Your task to perform on an android device: Search for asus zenbook on newegg.com, select the first entry, add it to the cart, then select checkout. Image 0: 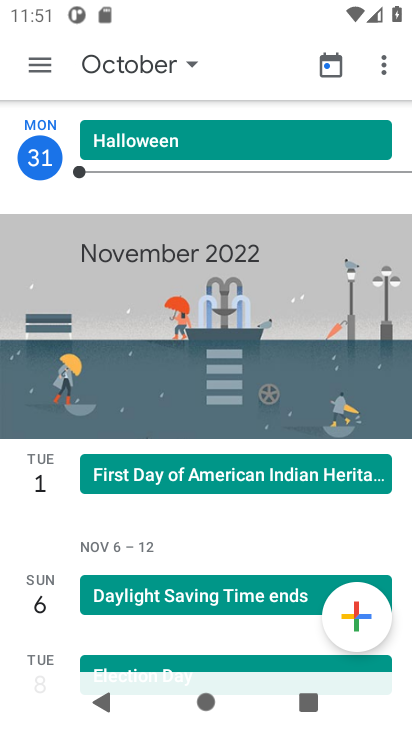
Step 0: press home button
Your task to perform on an android device: Search for asus zenbook on newegg.com, select the first entry, add it to the cart, then select checkout. Image 1: 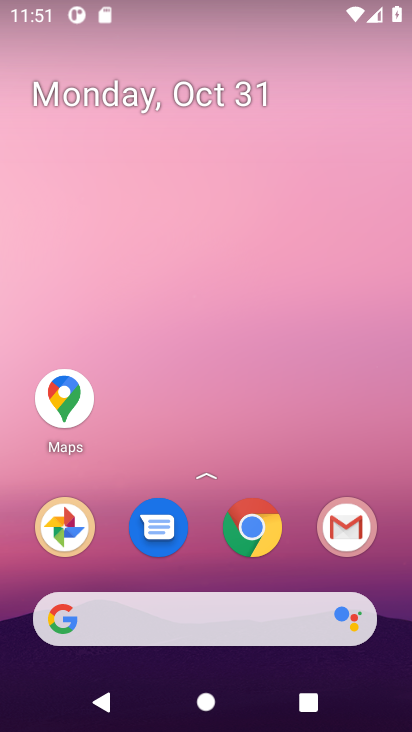
Step 1: click (249, 527)
Your task to perform on an android device: Search for asus zenbook on newegg.com, select the first entry, add it to the cart, then select checkout. Image 2: 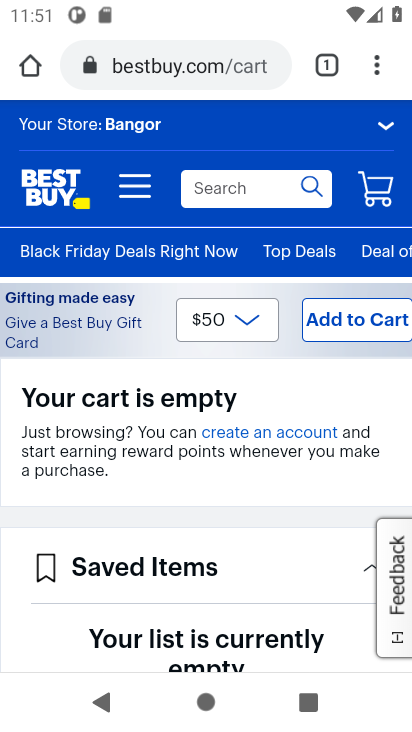
Step 2: click (202, 43)
Your task to perform on an android device: Search for asus zenbook on newegg.com, select the first entry, add it to the cart, then select checkout. Image 3: 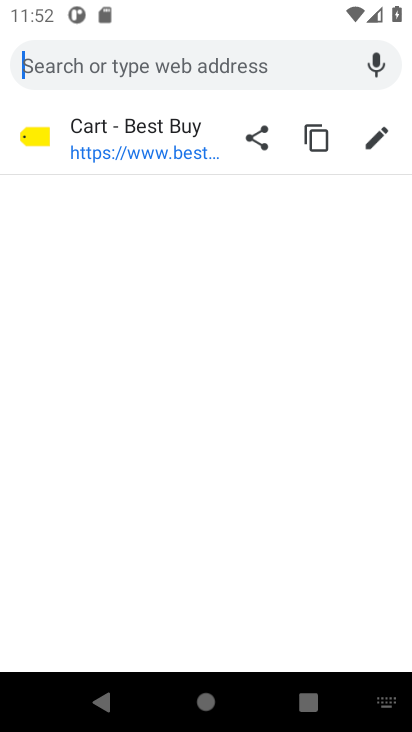
Step 3: type "newegg.com"
Your task to perform on an android device: Search for asus zenbook on newegg.com, select the first entry, add it to the cart, then select checkout. Image 4: 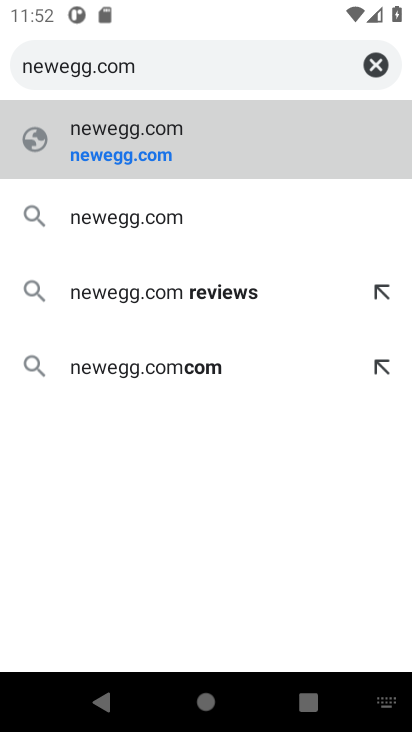
Step 4: click (138, 137)
Your task to perform on an android device: Search for asus zenbook on newegg.com, select the first entry, add it to the cart, then select checkout. Image 5: 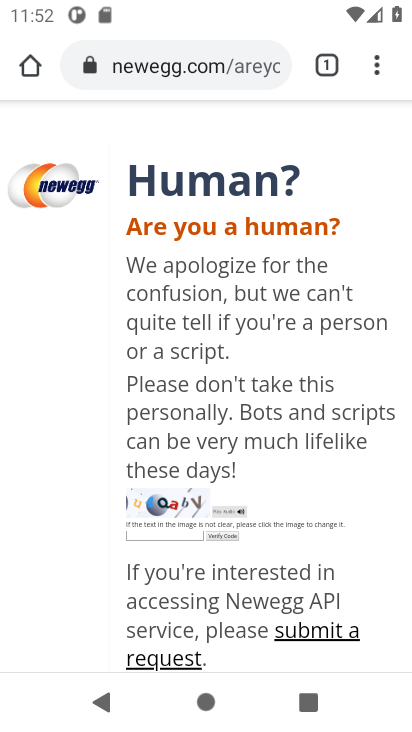
Step 5: click (151, 531)
Your task to perform on an android device: Search for asus zenbook on newegg.com, select the first entry, add it to the cart, then select checkout. Image 6: 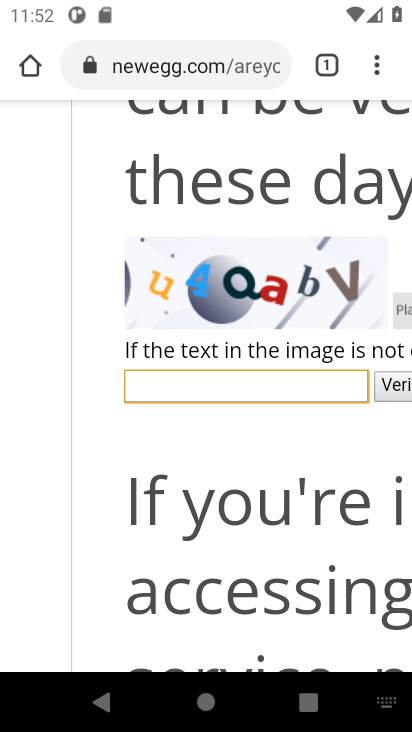
Step 6: type "u4QabV"
Your task to perform on an android device: Search for asus zenbook on newegg.com, select the first entry, add it to the cart, then select checkout. Image 7: 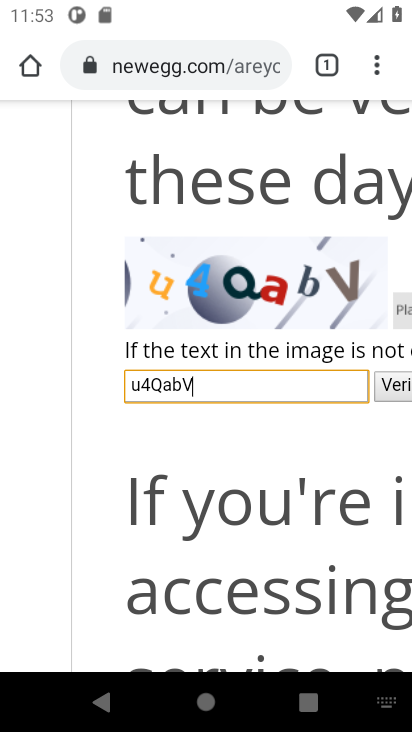
Step 7: click (389, 385)
Your task to perform on an android device: Search for asus zenbook on newegg.com, select the first entry, add it to the cart, then select checkout. Image 8: 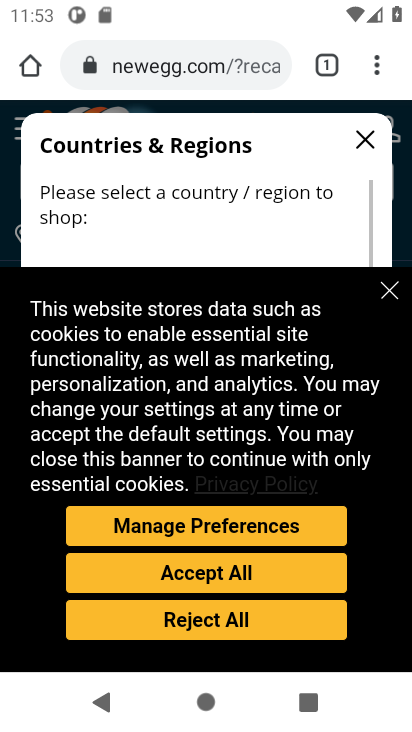
Step 8: click (204, 572)
Your task to perform on an android device: Search for asus zenbook on newegg.com, select the first entry, add it to the cart, then select checkout. Image 9: 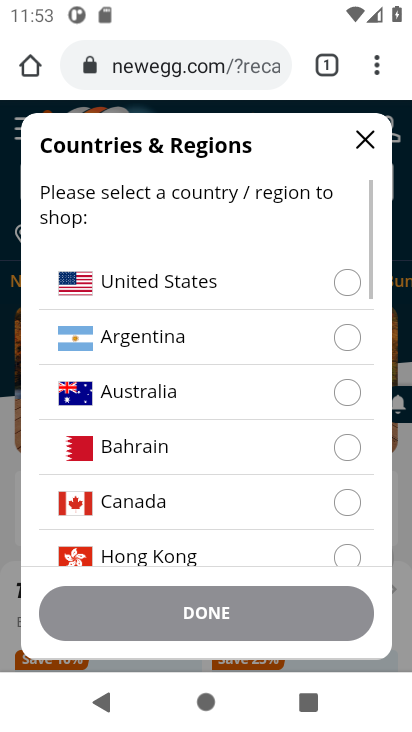
Step 9: click (347, 274)
Your task to perform on an android device: Search for asus zenbook on newegg.com, select the first entry, add it to the cart, then select checkout. Image 10: 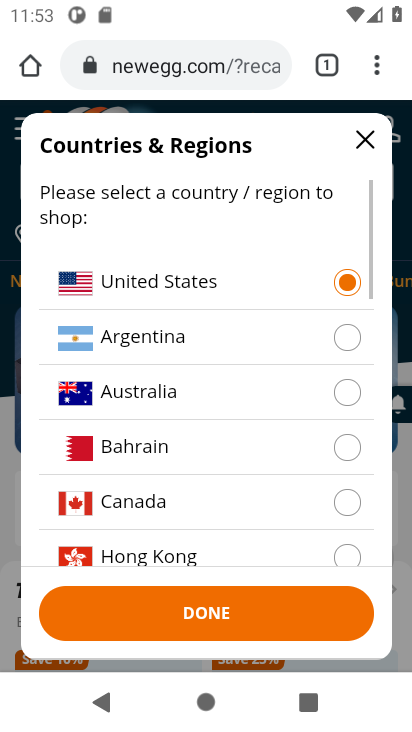
Step 10: click (209, 619)
Your task to perform on an android device: Search for asus zenbook on newegg.com, select the first entry, add it to the cart, then select checkout. Image 11: 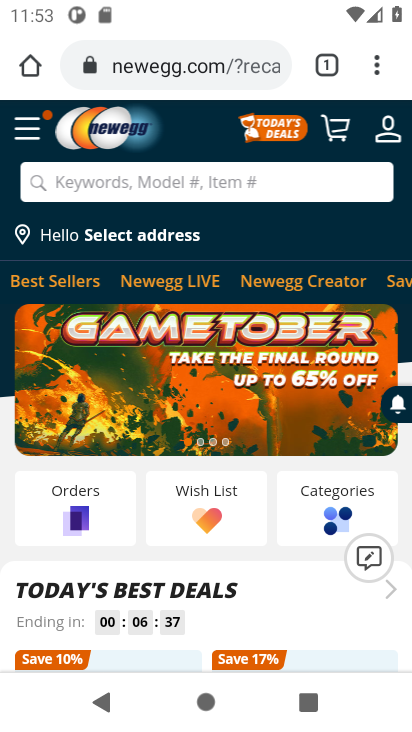
Step 11: click (103, 175)
Your task to perform on an android device: Search for asus zenbook on newegg.com, select the first entry, add it to the cart, then select checkout. Image 12: 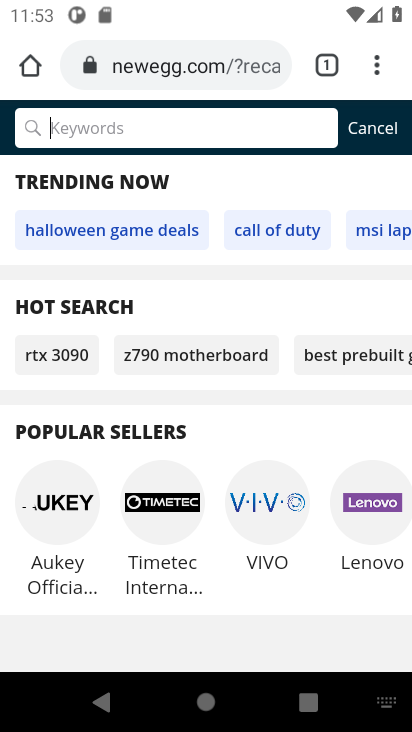
Step 12: type "asus zenbook"
Your task to perform on an android device: Search for asus zenbook on newegg.com, select the first entry, add it to the cart, then select checkout. Image 13: 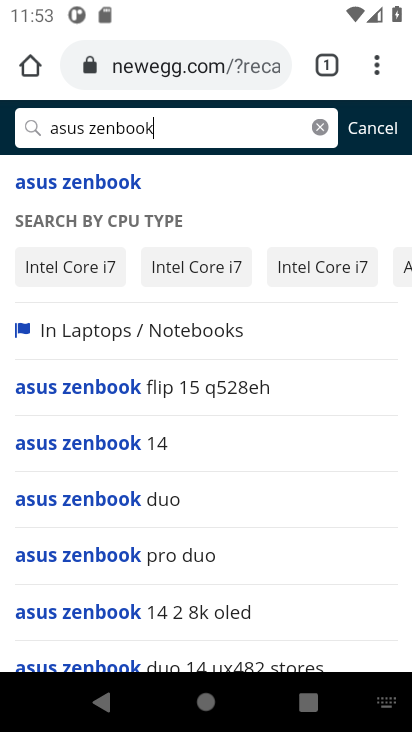
Step 13: click (58, 181)
Your task to perform on an android device: Search for asus zenbook on newegg.com, select the first entry, add it to the cart, then select checkout. Image 14: 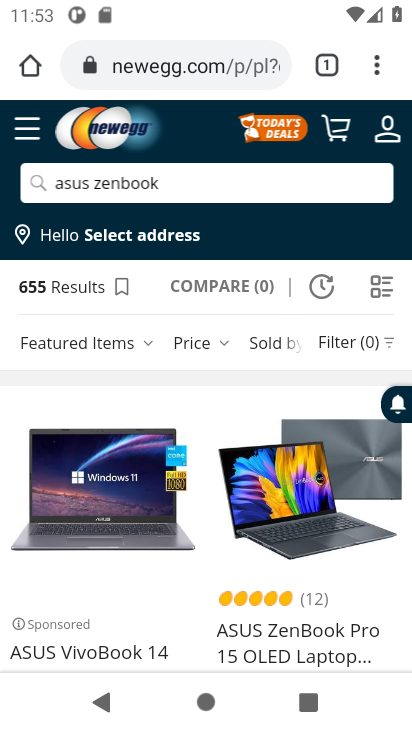
Step 14: drag from (193, 617) to (192, 337)
Your task to perform on an android device: Search for asus zenbook on newegg.com, select the first entry, add it to the cart, then select checkout. Image 15: 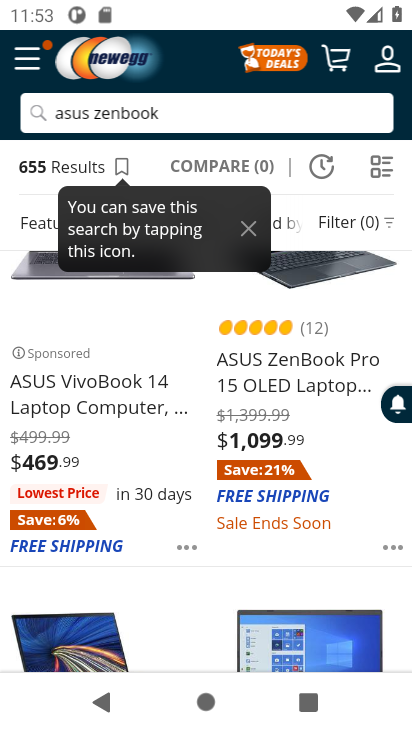
Step 15: click (282, 360)
Your task to perform on an android device: Search for asus zenbook on newegg.com, select the first entry, add it to the cart, then select checkout. Image 16: 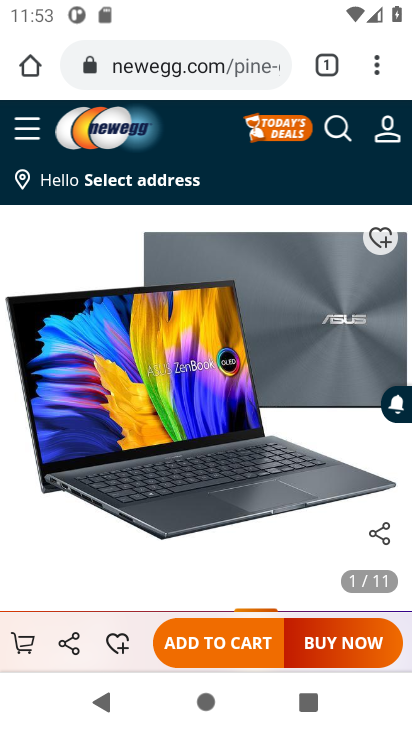
Step 16: drag from (219, 575) to (213, 249)
Your task to perform on an android device: Search for asus zenbook on newegg.com, select the first entry, add it to the cart, then select checkout. Image 17: 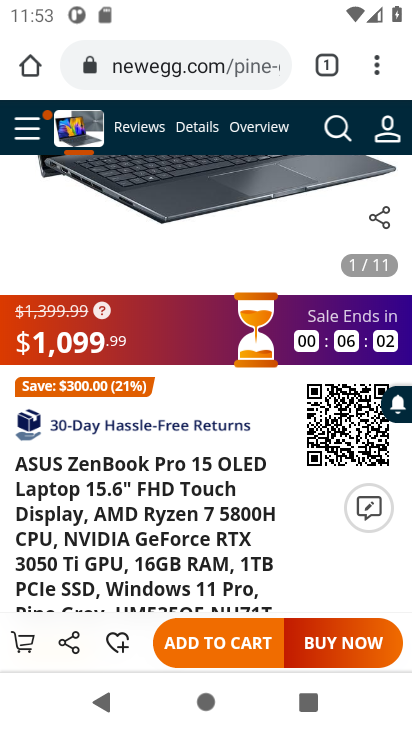
Step 17: click (214, 645)
Your task to perform on an android device: Search for asus zenbook on newegg.com, select the first entry, add it to the cart, then select checkout. Image 18: 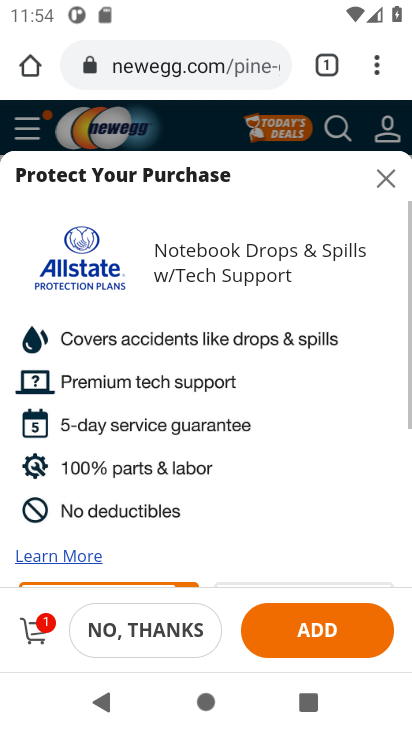
Step 18: click (322, 636)
Your task to perform on an android device: Search for asus zenbook on newegg.com, select the first entry, add it to the cart, then select checkout. Image 19: 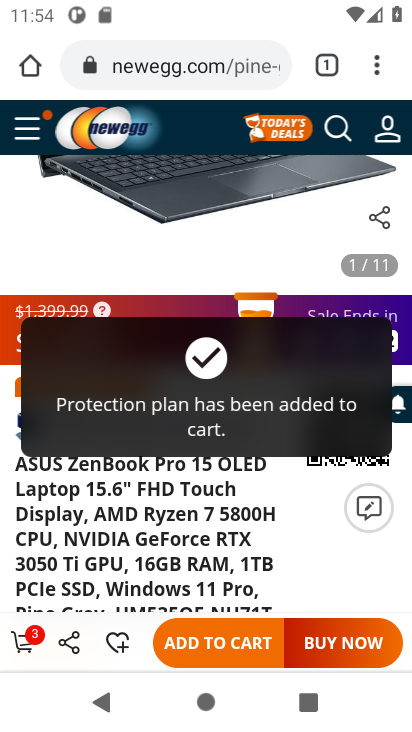
Step 19: click (23, 644)
Your task to perform on an android device: Search for asus zenbook on newegg.com, select the first entry, add it to the cart, then select checkout. Image 20: 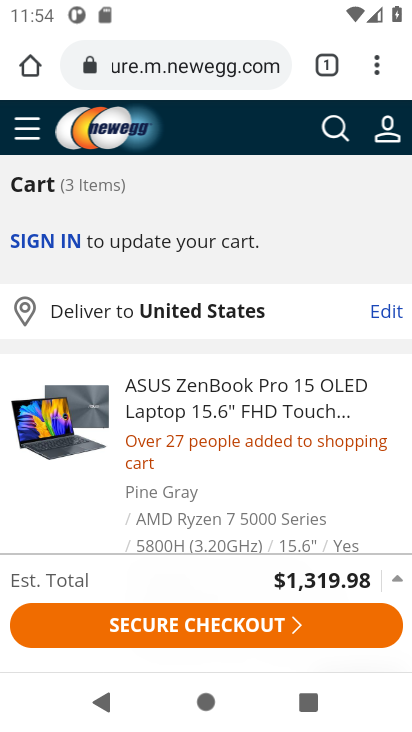
Step 20: drag from (171, 509) to (193, 180)
Your task to perform on an android device: Search for asus zenbook on newegg.com, select the first entry, add it to the cart, then select checkout. Image 21: 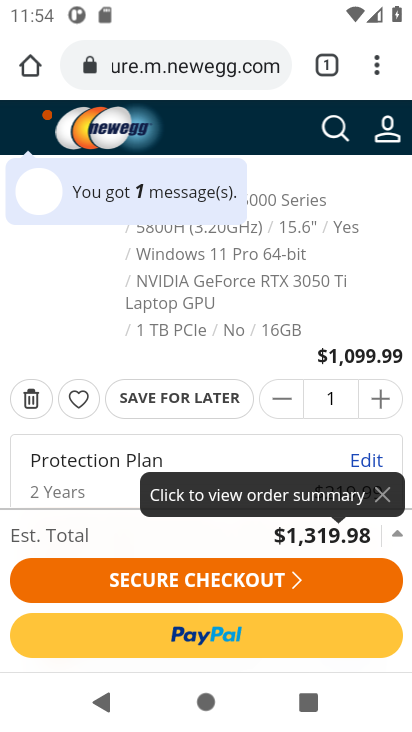
Step 21: drag from (126, 464) to (208, 226)
Your task to perform on an android device: Search for asus zenbook on newegg.com, select the first entry, add it to the cart, then select checkout. Image 22: 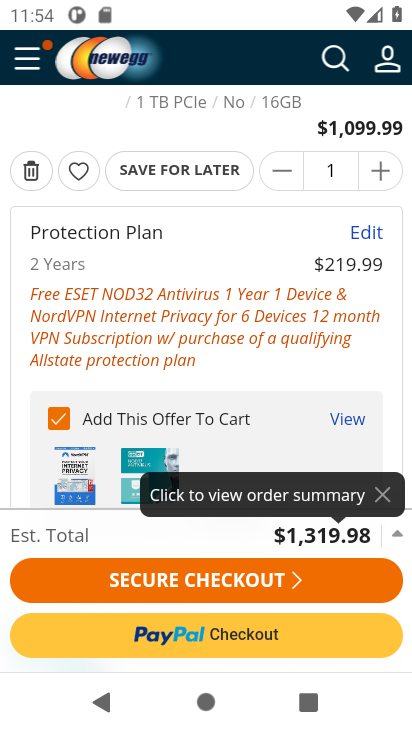
Step 22: drag from (108, 430) to (98, 542)
Your task to perform on an android device: Search for asus zenbook on newegg.com, select the first entry, add it to the cart, then select checkout. Image 23: 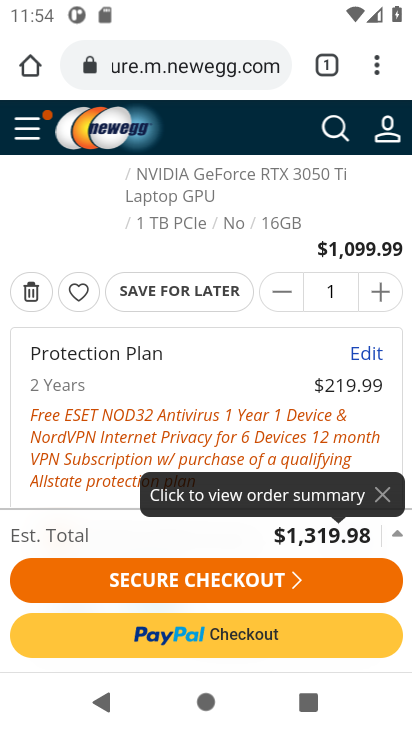
Step 23: click (210, 583)
Your task to perform on an android device: Search for asus zenbook on newegg.com, select the first entry, add it to the cart, then select checkout. Image 24: 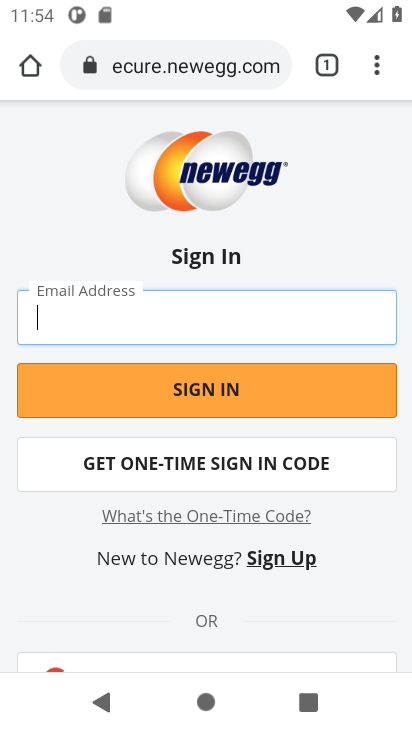
Step 24: task complete